Your task to perform on an android device: Show me productivity apps on the Play Store Image 0: 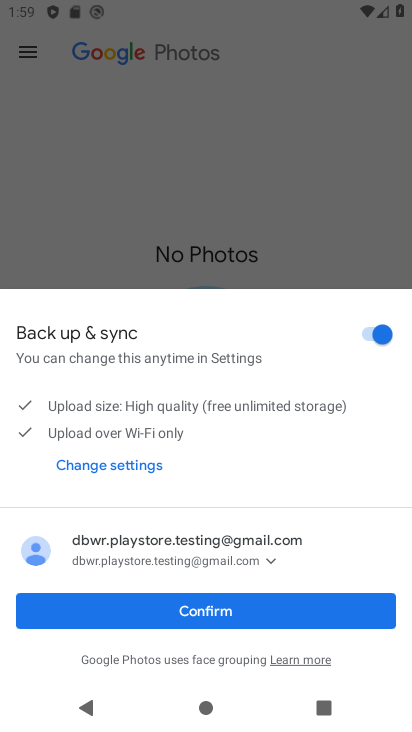
Step 0: press home button
Your task to perform on an android device: Show me productivity apps on the Play Store Image 1: 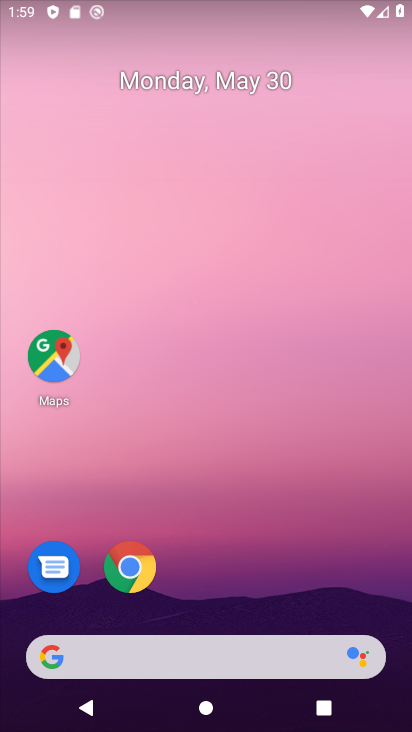
Step 1: drag from (209, 614) to (212, 129)
Your task to perform on an android device: Show me productivity apps on the Play Store Image 2: 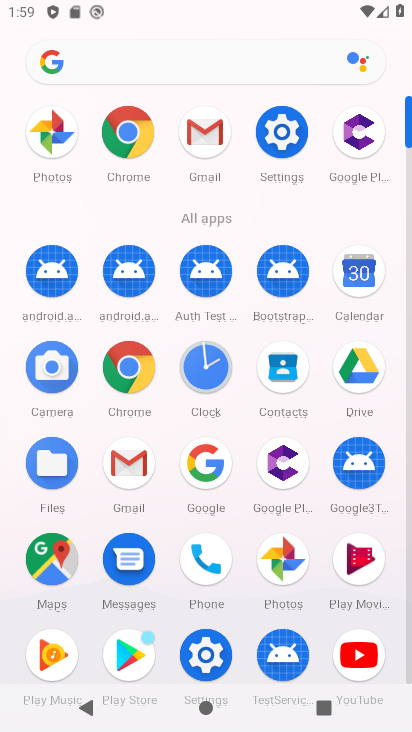
Step 2: click (121, 659)
Your task to perform on an android device: Show me productivity apps on the Play Store Image 3: 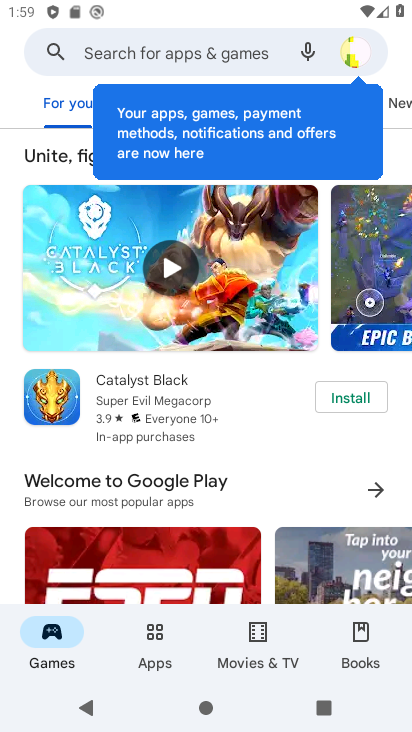
Step 3: click (144, 648)
Your task to perform on an android device: Show me productivity apps on the Play Store Image 4: 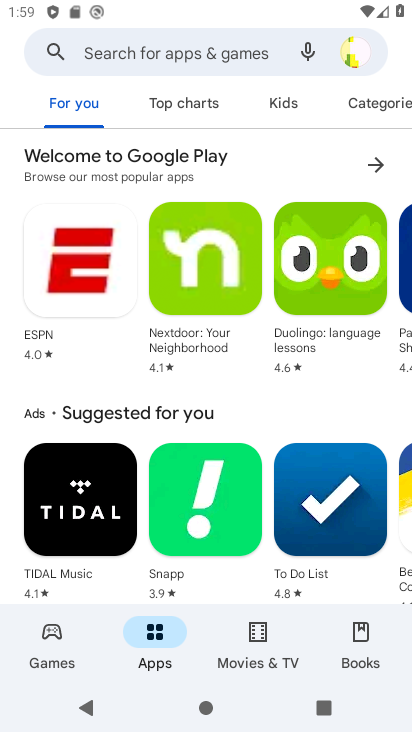
Step 4: click (376, 104)
Your task to perform on an android device: Show me productivity apps on the Play Store Image 5: 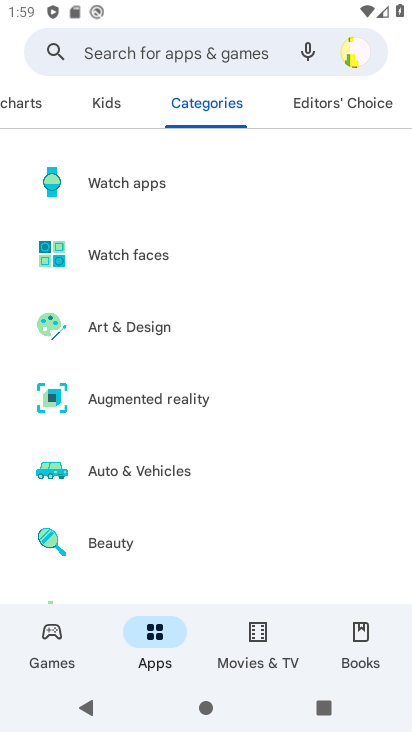
Step 5: drag from (151, 575) to (173, 238)
Your task to perform on an android device: Show me productivity apps on the Play Store Image 6: 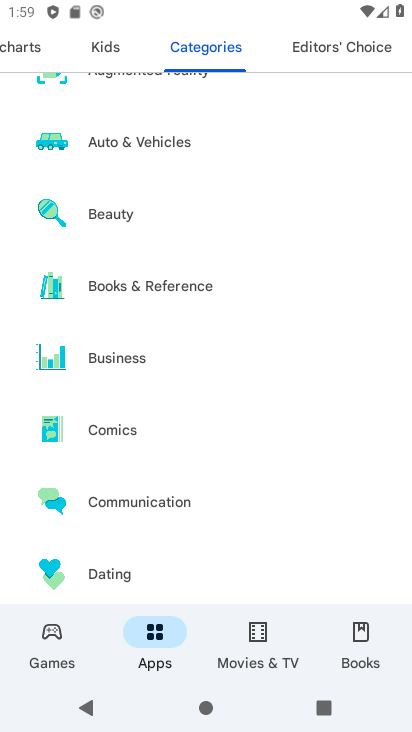
Step 6: drag from (149, 580) to (188, 191)
Your task to perform on an android device: Show me productivity apps on the Play Store Image 7: 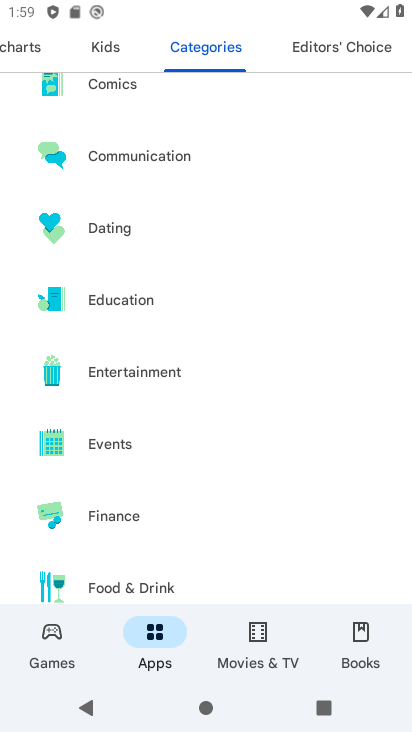
Step 7: drag from (155, 505) to (161, 174)
Your task to perform on an android device: Show me productivity apps on the Play Store Image 8: 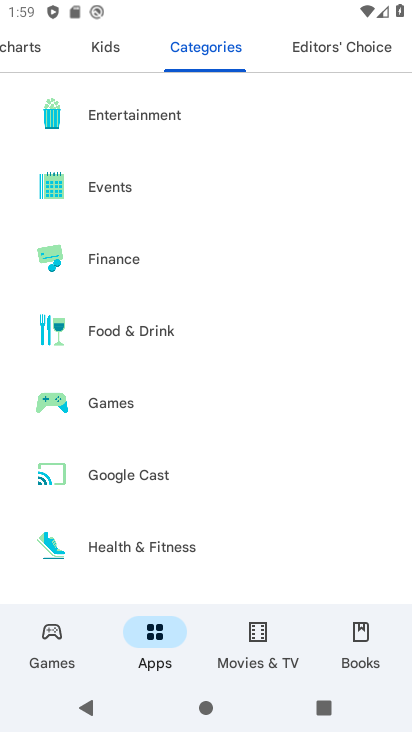
Step 8: drag from (109, 581) to (131, 306)
Your task to perform on an android device: Show me productivity apps on the Play Store Image 9: 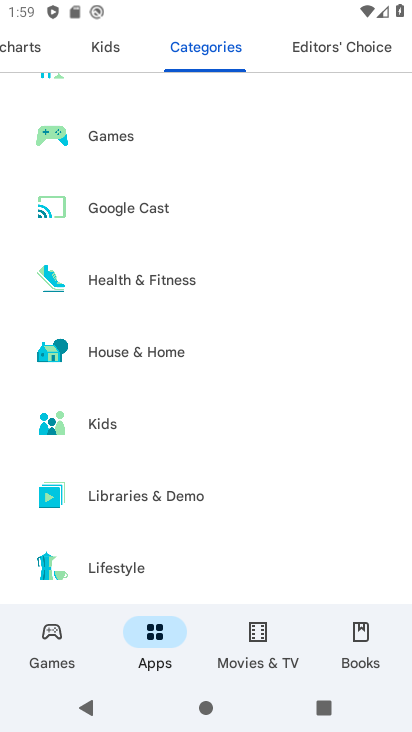
Step 9: drag from (131, 511) to (159, 213)
Your task to perform on an android device: Show me productivity apps on the Play Store Image 10: 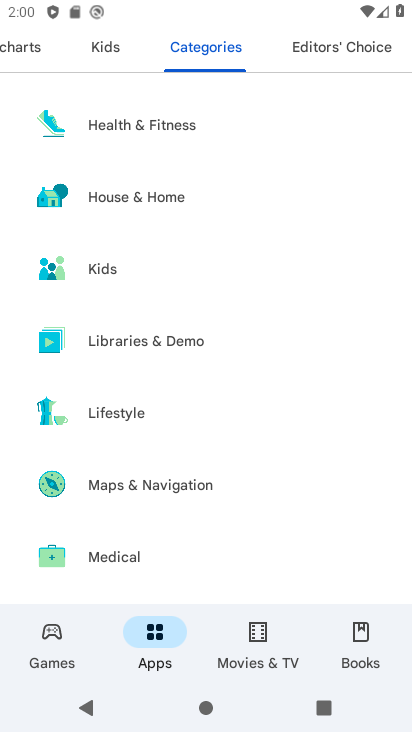
Step 10: drag from (110, 503) to (168, 131)
Your task to perform on an android device: Show me productivity apps on the Play Store Image 11: 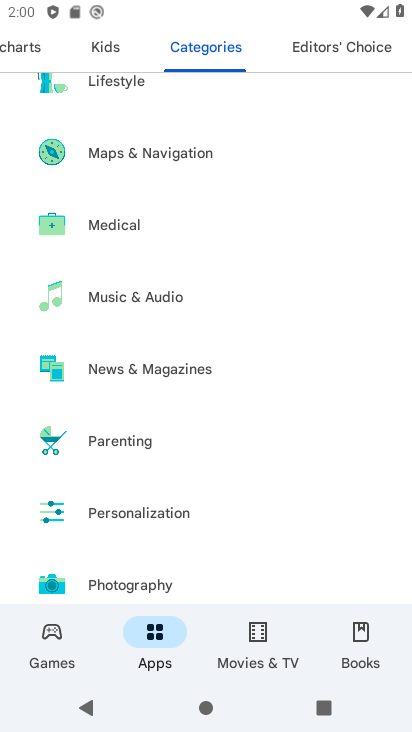
Step 11: drag from (155, 473) to (181, 314)
Your task to perform on an android device: Show me productivity apps on the Play Store Image 12: 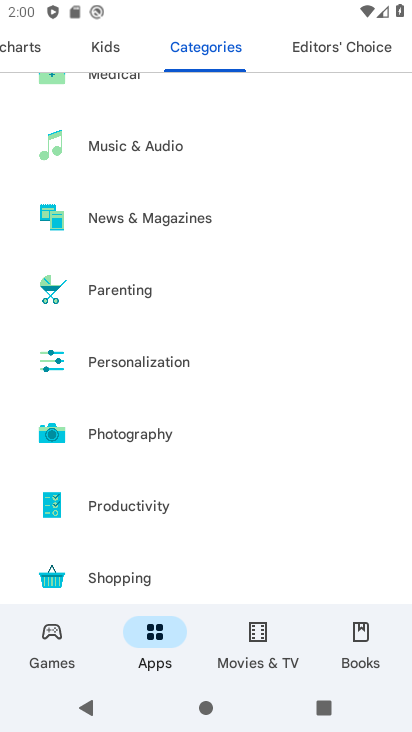
Step 12: click (125, 513)
Your task to perform on an android device: Show me productivity apps on the Play Store Image 13: 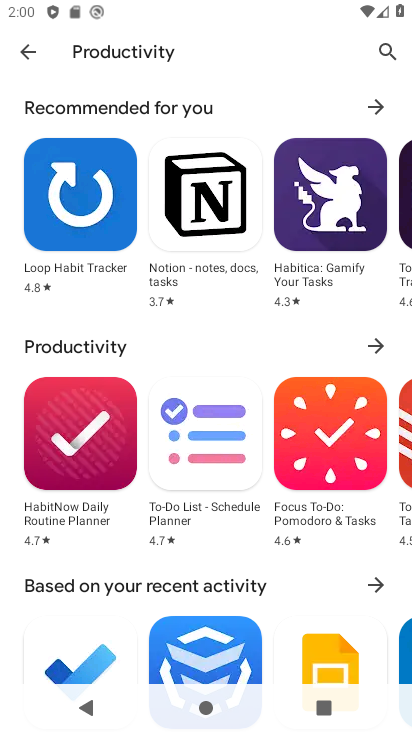
Step 13: task complete